Your task to perform on an android device: Open the web browser Image 0: 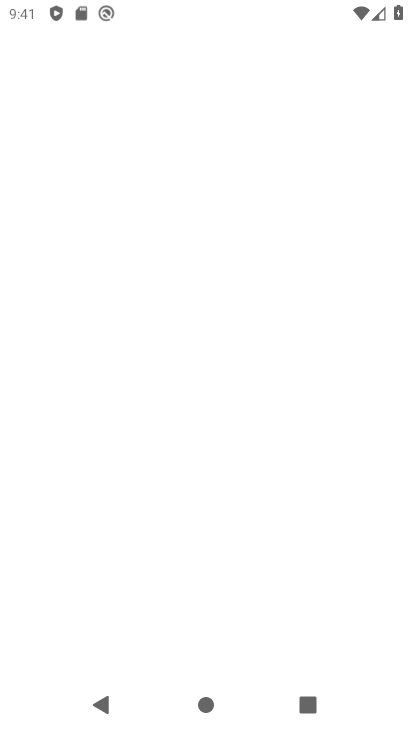
Step 0: press home button
Your task to perform on an android device: Open the web browser Image 1: 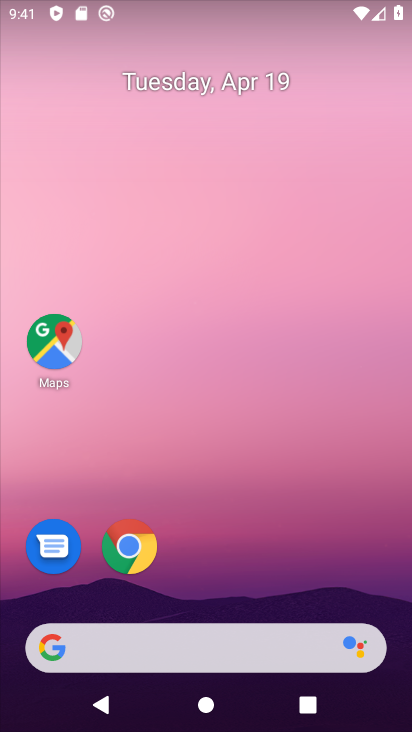
Step 1: click (212, 652)
Your task to perform on an android device: Open the web browser Image 2: 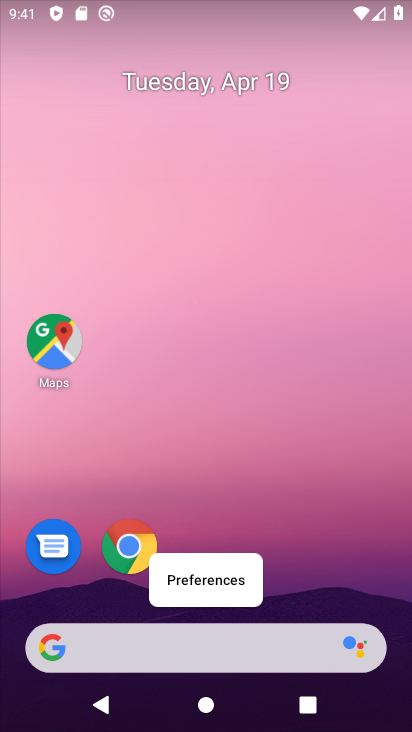
Step 2: click (216, 645)
Your task to perform on an android device: Open the web browser Image 3: 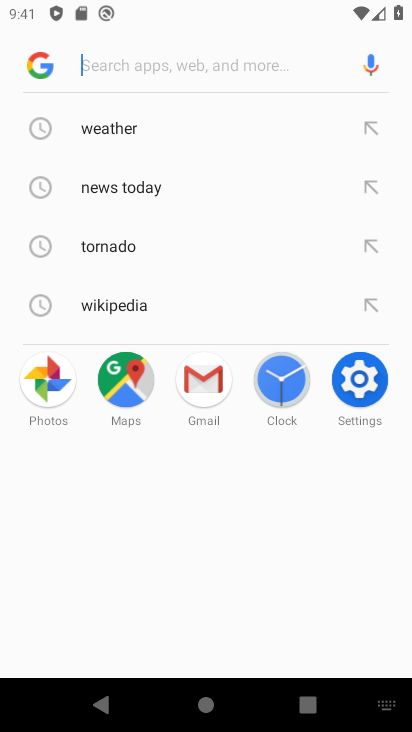
Step 3: task complete